Your task to perform on an android device: see creations saved in the google photos Image 0: 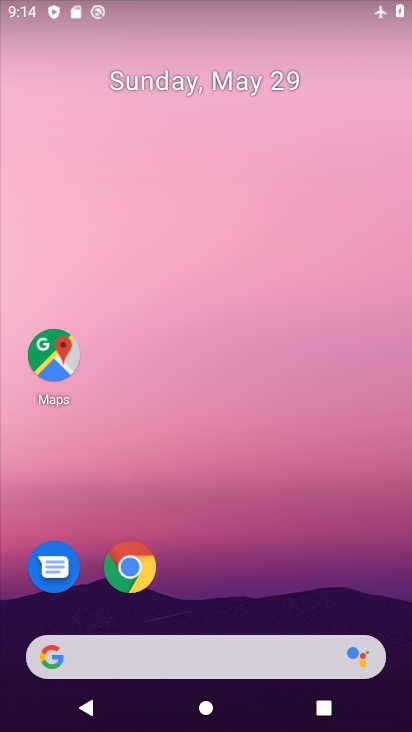
Step 0: drag from (401, 622) to (278, 93)
Your task to perform on an android device: see creations saved in the google photos Image 1: 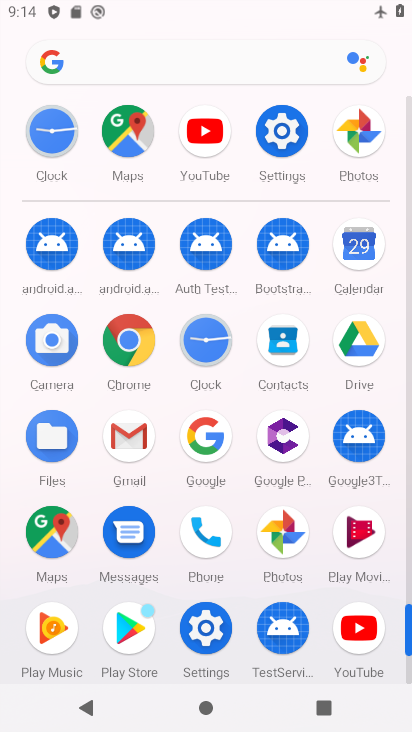
Step 1: click (286, 531)
Your task to perform on an android device: see creations saved in the google photos Image 2: 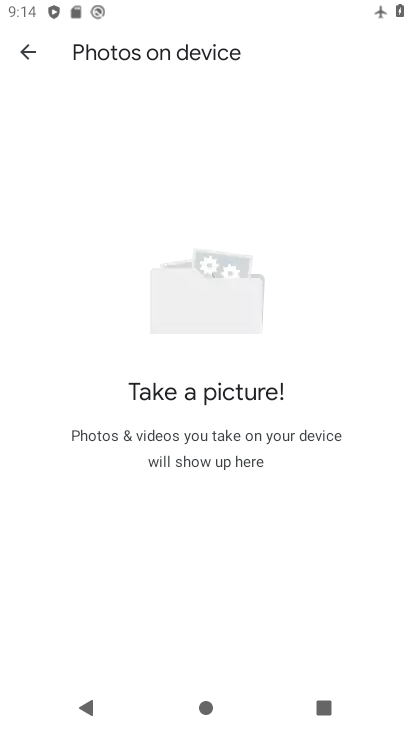
Step 2: task complete